Your task to perform on an android device: Find coffee shops on Maps Image 0: 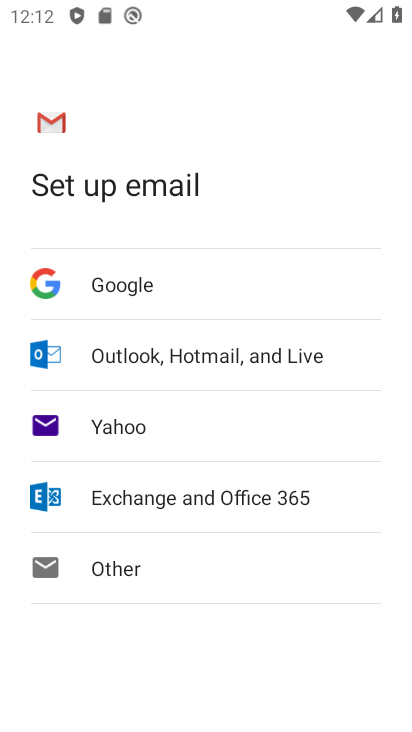
Step 0: press home button
Your task to perform on an android device: Find coffee shops on Maps Image 1: 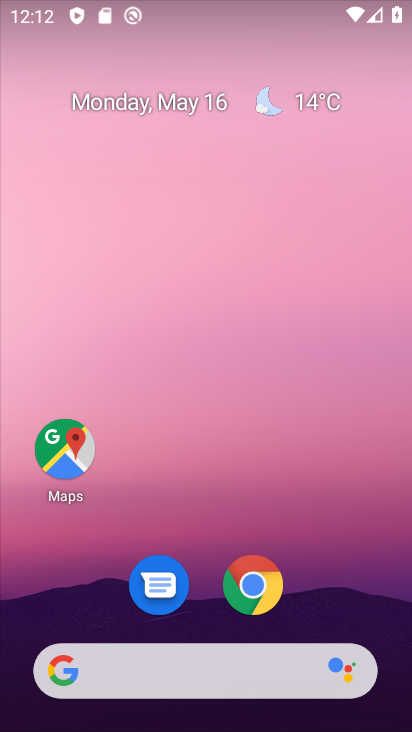
Step 1: drag from (230, 496) to (242, 97)
Your task to perform on an android device: Find coffee shops on Maps Image 2: 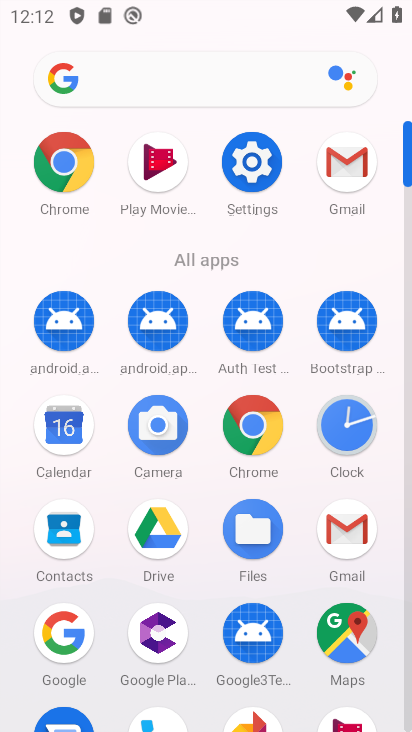
Step 2: drag from (205, 535) to (220, 428)
Your task to perform on an android device: Find coffee shops on Maps Image 3: 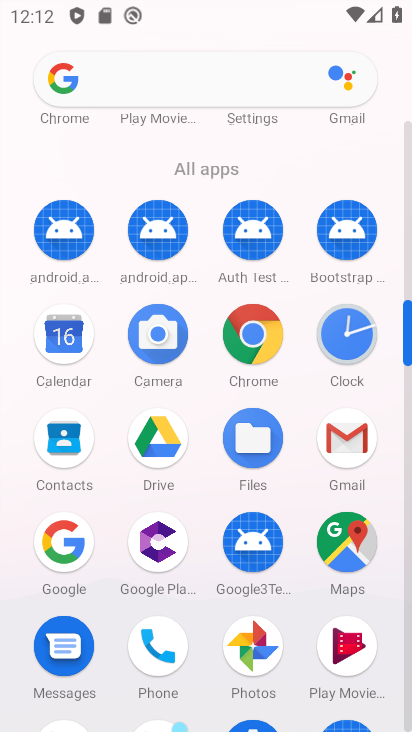
Step 3: click (338, 534)
Your task to perform on an android device: Find coffee shops on Maps Image 4: 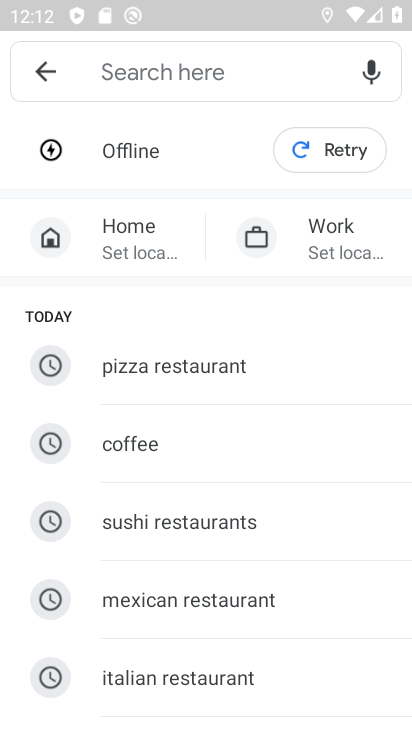
Step 4: click (137, 64)
Your task to perform on an android device: Find coffee shops on Maps Image 5: 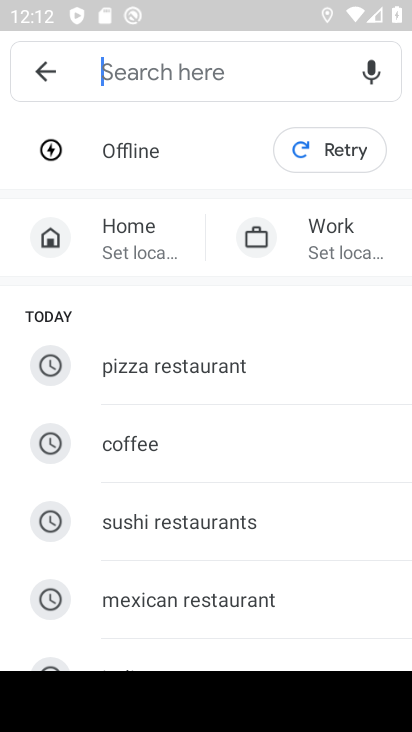
Step 5: click (154, 437)
Your task to perform on an android device: Find coffee shops on Maps Image 6: 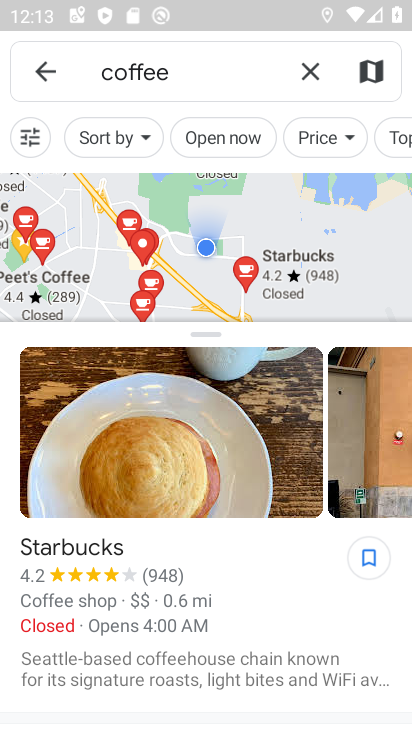
Step 6: task complete